Your task to perform on an android device: turn off sleep mode Image 0: 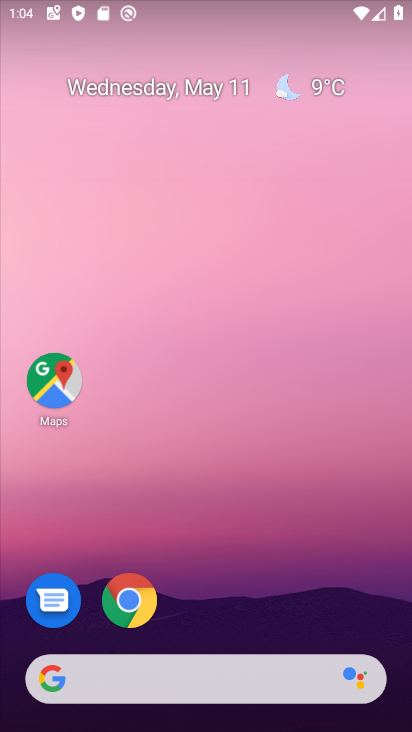
Step 0: drag from (240, 712) to (242, 18)
Your task to perform on an android device: turn off sleep mode Image 1: 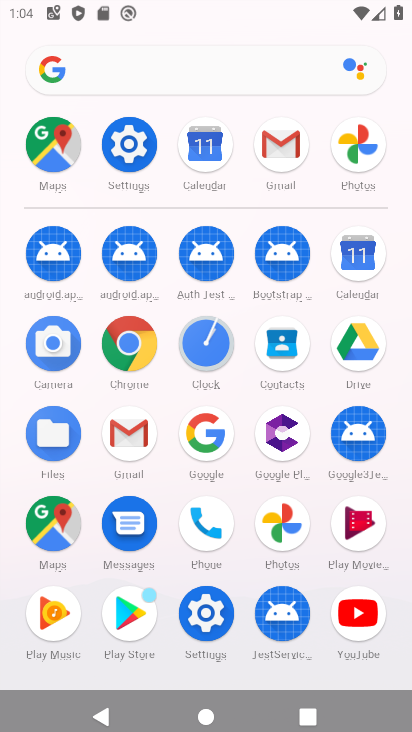
Step 1: click (137, 134)
Your task to perform on an android device: turn off sleep mode Image 2: 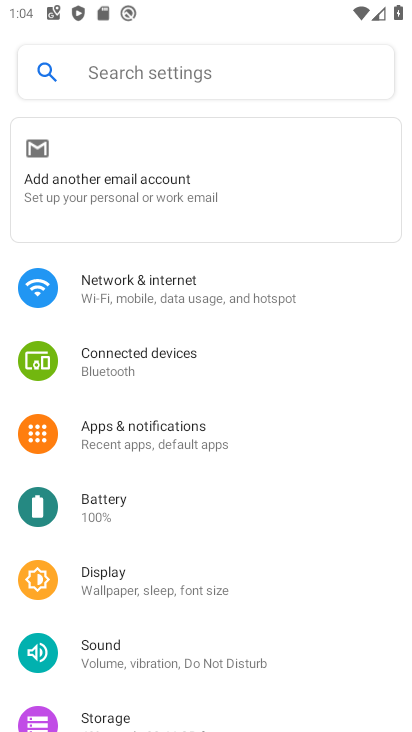
Step 2: click (208, 574)
Your task to perform on an android device: turn off sleep mode Image 3: 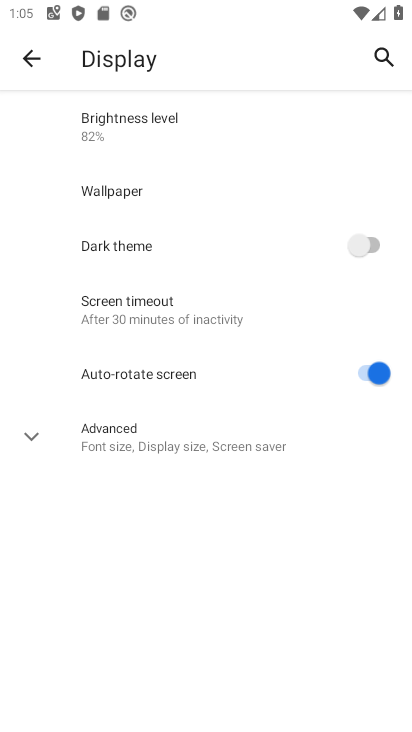
Step 3: task complete